Your task to perform on an android device: toggle airplane mode Image 0: 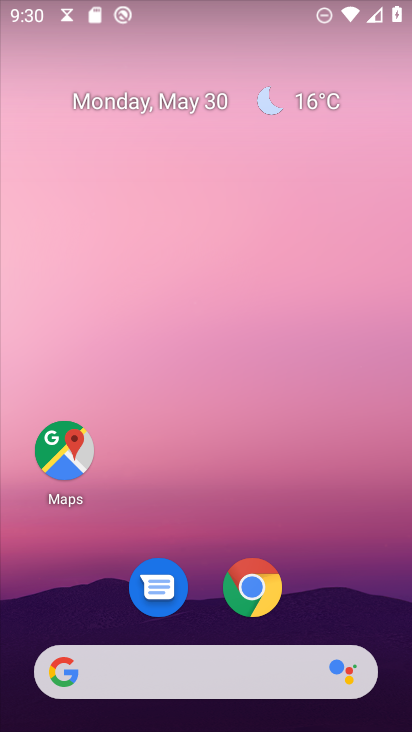
Step 0: drag from (198, 670) to (330, 188)
Your task to perform on an android device: toggle airplane mode Image 1: 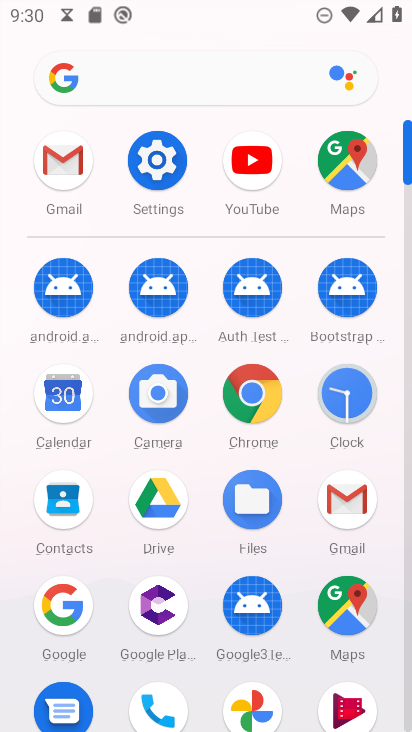
Step 1: click (147, 163)
Your task to perform on an android device: toggle airplane mode Image 2: 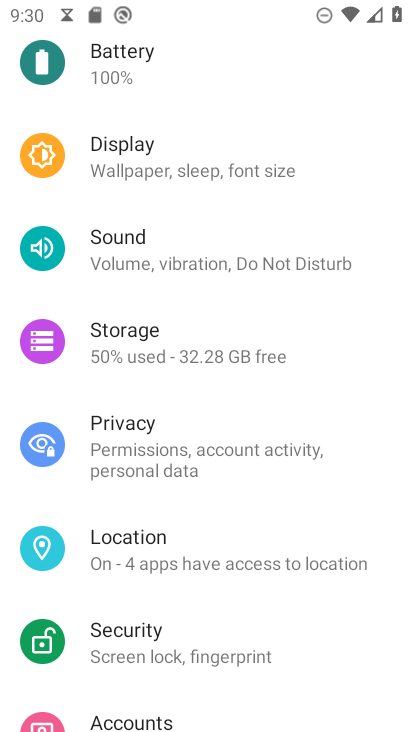
Step 2: drag from (273, 86) to (246, 606)
Your task to perform on an android device: toggle airplane mode Image 3: 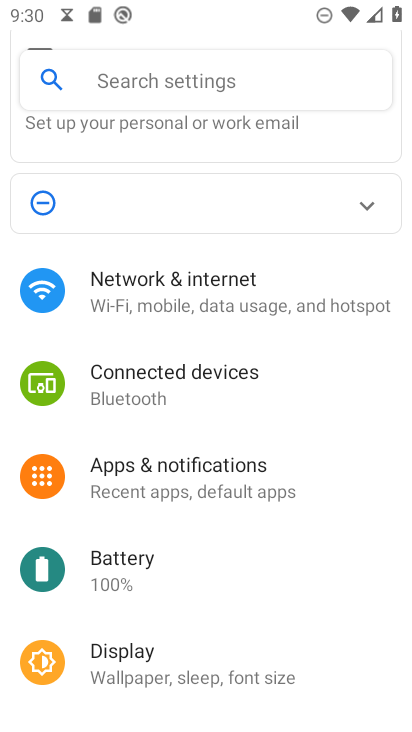
Step 3: click (232, 295)
Your task to perform on an android device: toggle airplane mode Image 4: 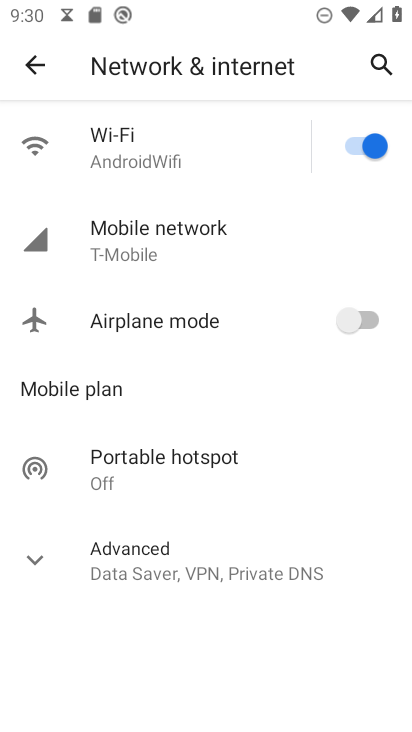
Step 4: click (369, 320)
Your task to perform on an android device: toggle airplane mode Image 5: 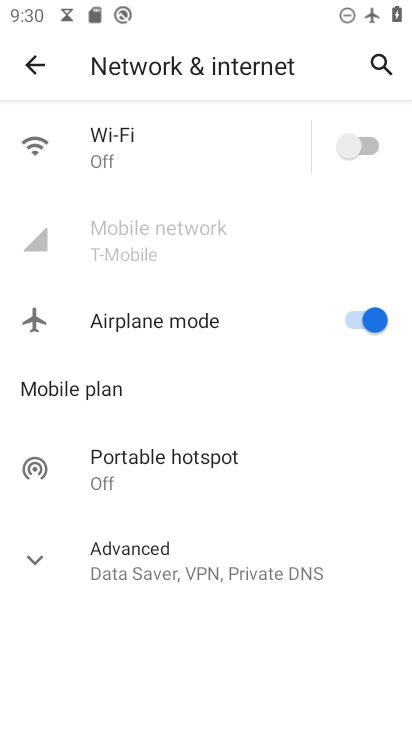
Step 5: task complete